Your task to perform on an android device: Search for the best pizza restaurants on Maps Image 0: 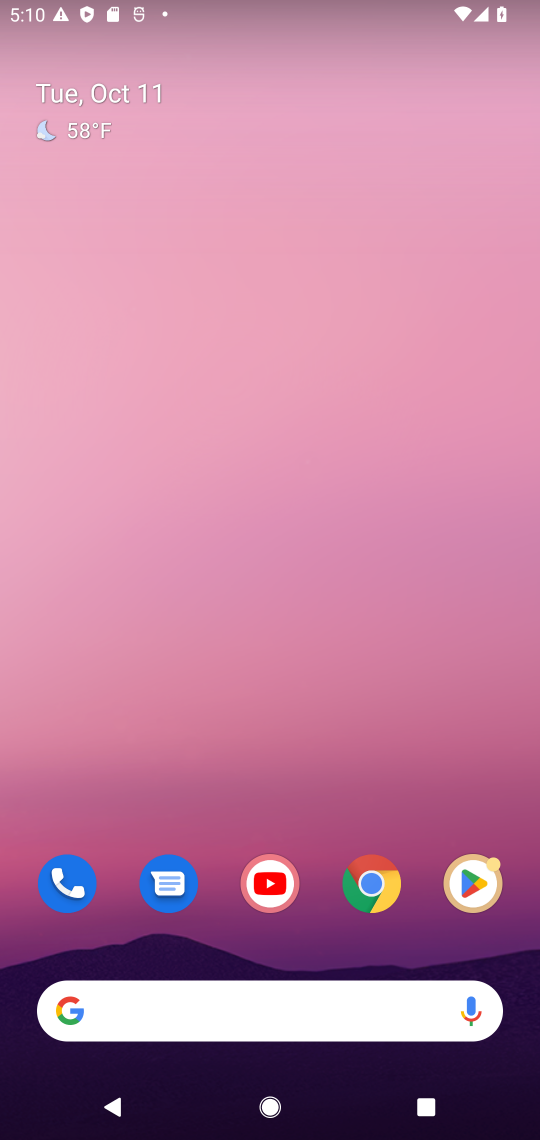
Step 0: drag from (307, 903) to (53, 11)
Your task to perform on an android device: Search for the best pizza restaurants on Maps Image 1: 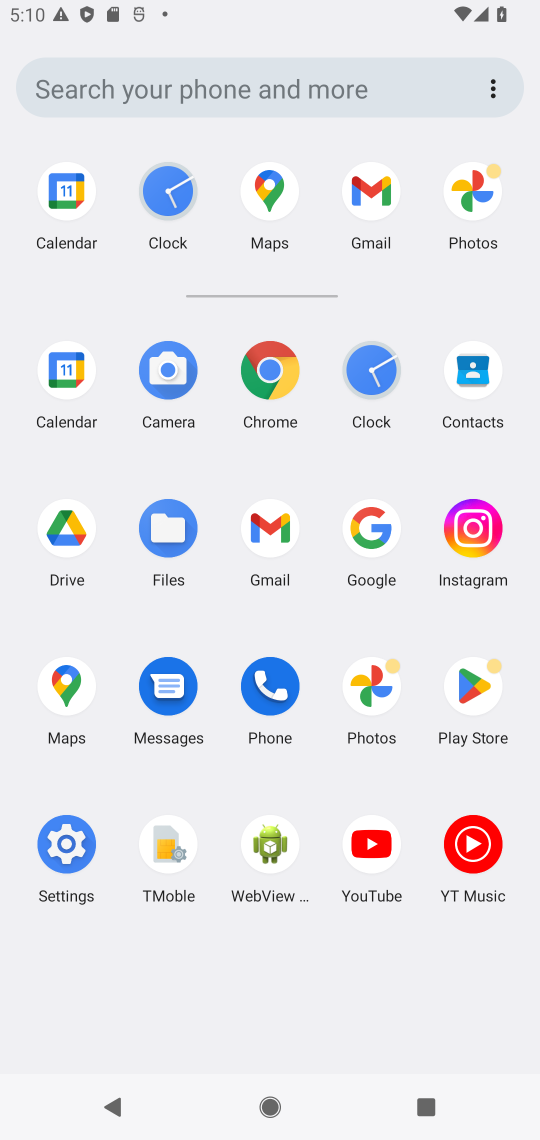
Step 1: click (268, 184)
Your task to perform on an android device: Search for the best pizza restaurants on Maps Image 2: 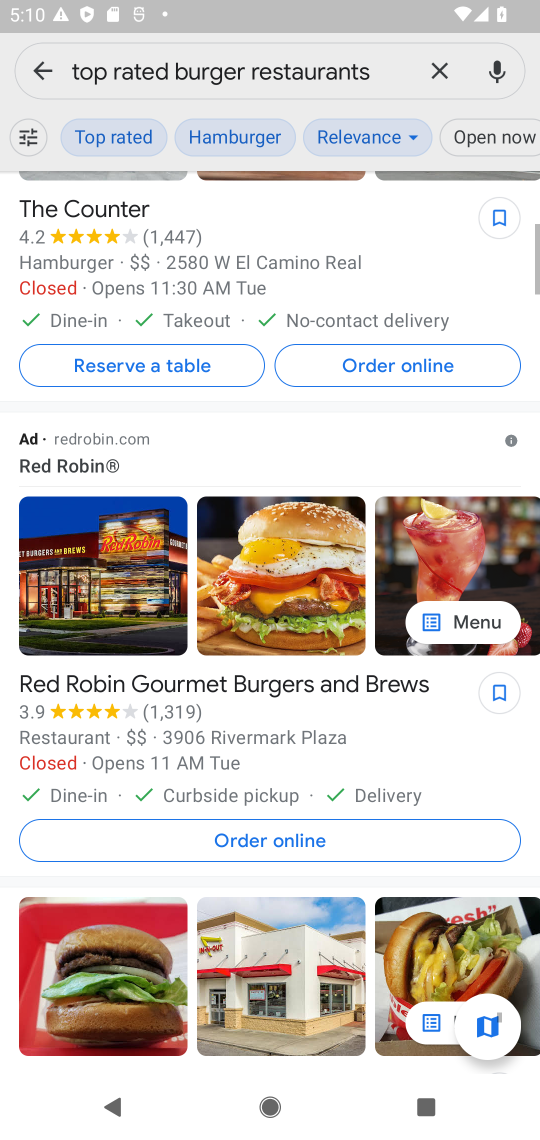
Step 2: click (267, 67)
Your task to perform on an android device: Search for the best pizza restaurants on Maps Image 3: 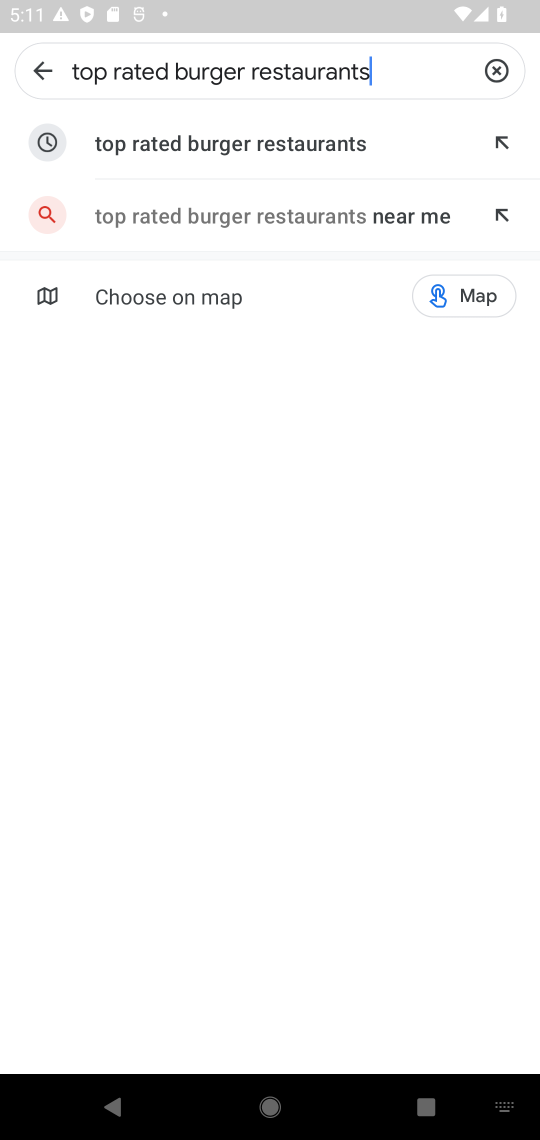
Step 3: click (494, 66)
Your task to perform on an android device: Search for the best pizza restaurants on Maps Image 4: 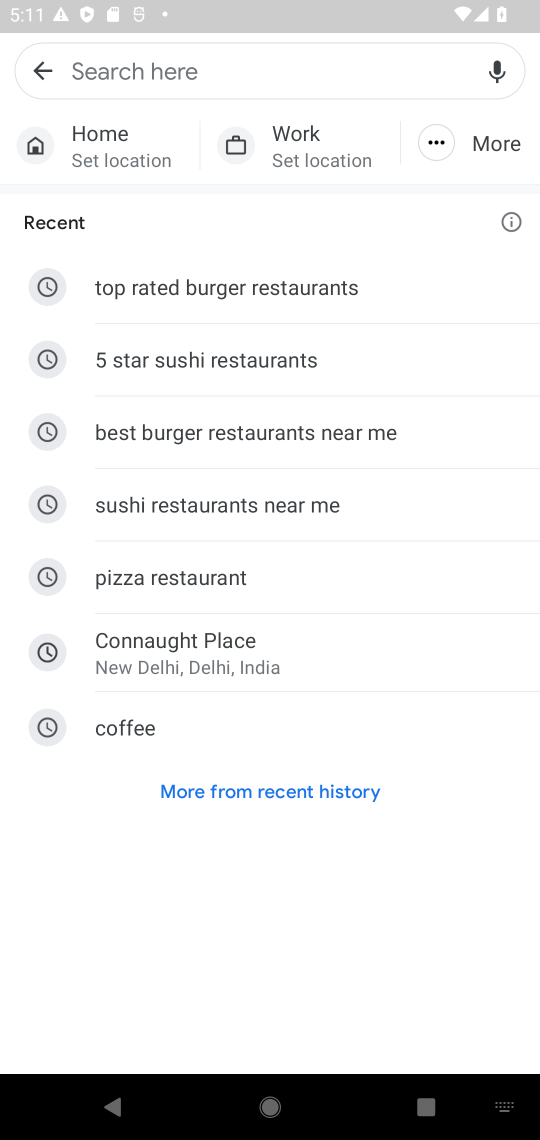
Step 4: type "best pizza restaurants"
Your task to perform on an android device: Search for the best pizza restaurants on Maps Image 5: 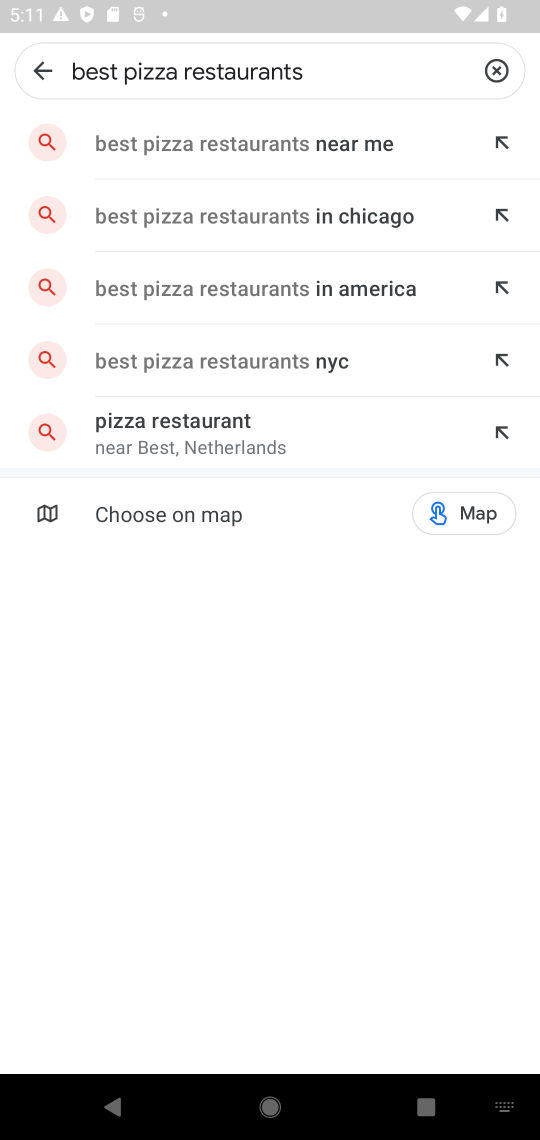
Step 5: press enter
Your task to perform on an android device: Search for the best pizza restaurants on Maps Image 6: 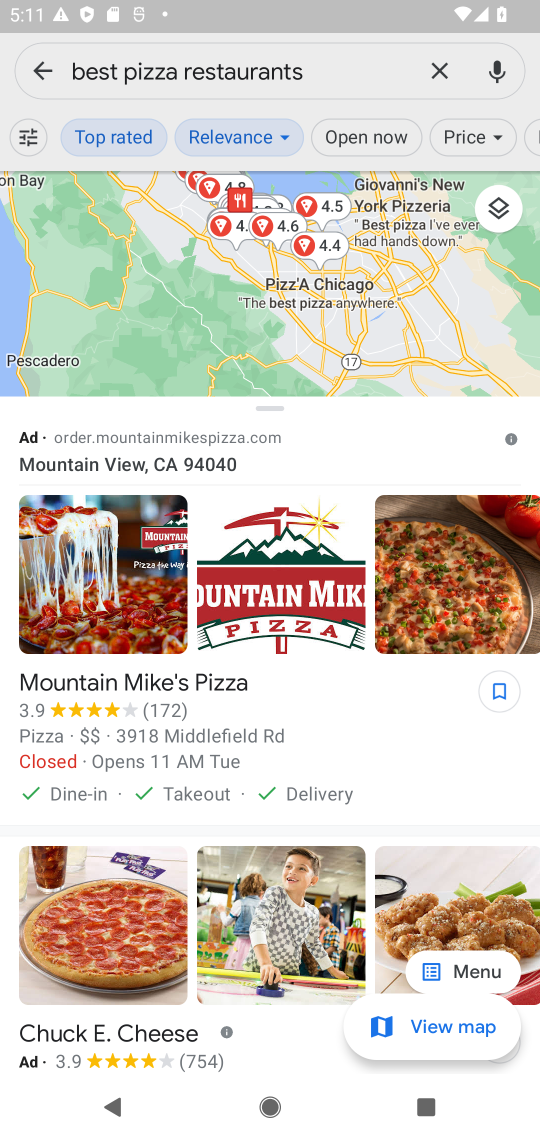
Step 6: task complete